Your task to perform on an android device: toggle priority inbox in the gmail app Image 0: 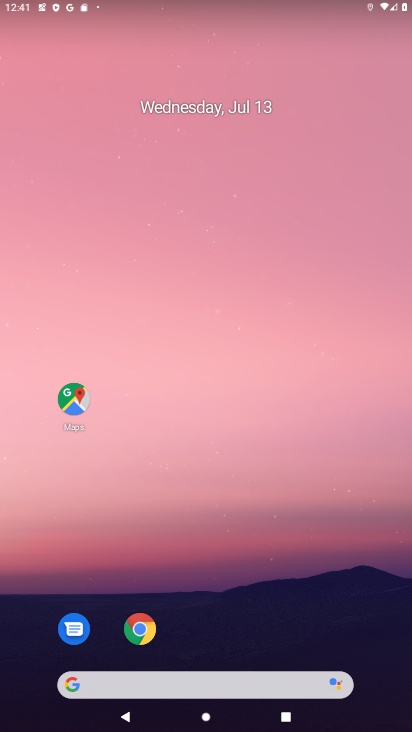
Step 0: drag from (233, 643) to (233, 337)
Your task to perform on an android device: toggle priority inbox in the gmail app Image 1: 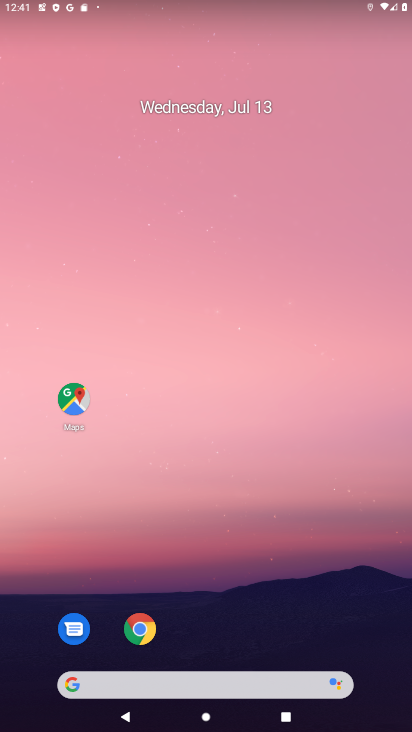
Step 1: drag from (211, 649) to (206, 236)
Your task to perform on an android device: toggle priority inbox in the gmail app Image 2: 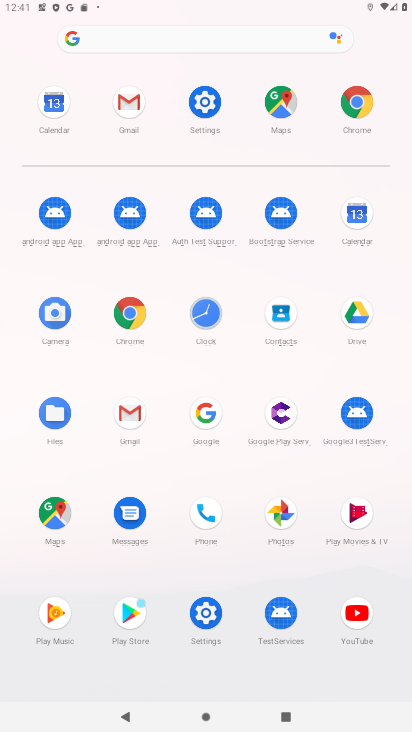
Step 2: click (129, 107)
Your task to perform on an android device: toggle priority inbox in the gmail app Image 3: 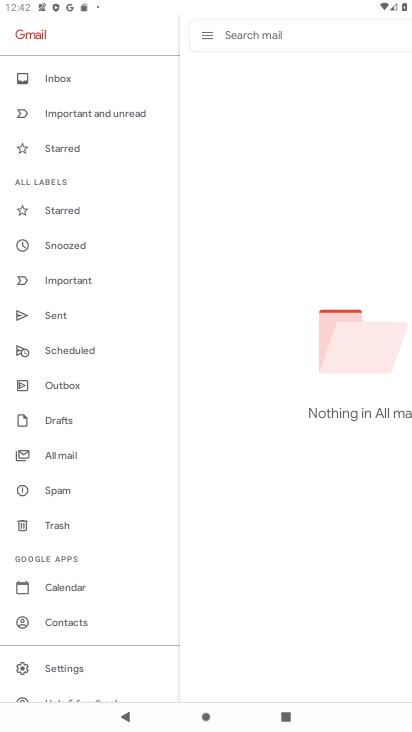
Step 3: click (58, 679)
Your task to perform on an android device: toggle priority inbox in the gmail app Image 4: 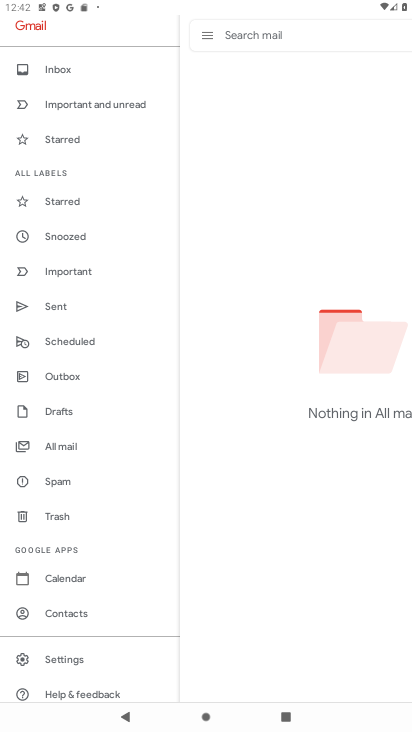
Step 4: click (64, 661)
Your task to perform on an android device: toggle priority inbox in the gmail app Image 5: 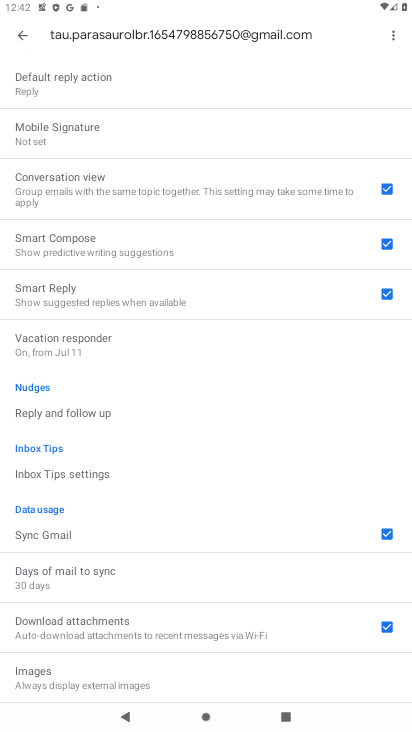
Step 5: drag from (46, 110) to (50, 544)
Your task to perform on an android device: toggle priority inbox in the gmail app Image 6: 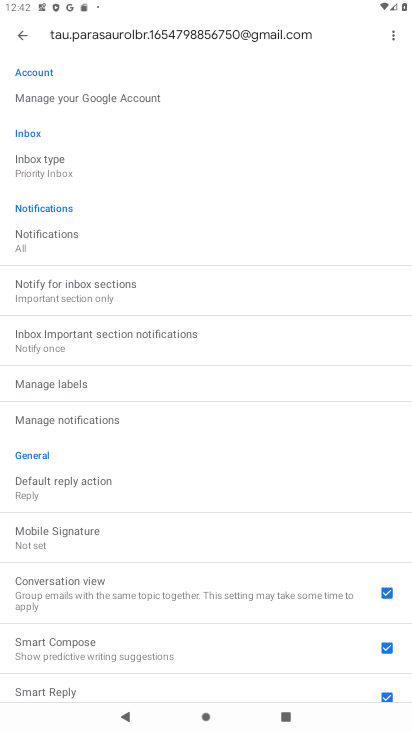
Step 6: click (58, 175)
Your task to perform on an android device: toggle priority inbox in the gmail app Image 7: 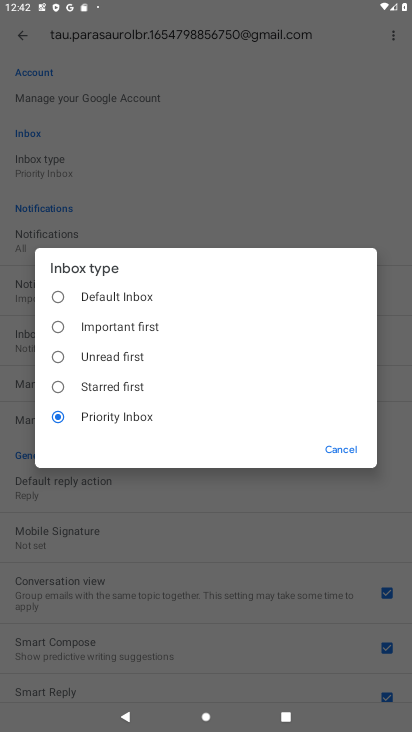
Step 7: click (108, 296)
Your task to perform on an android device: toggle priority inbox in the gmail app Image 8: 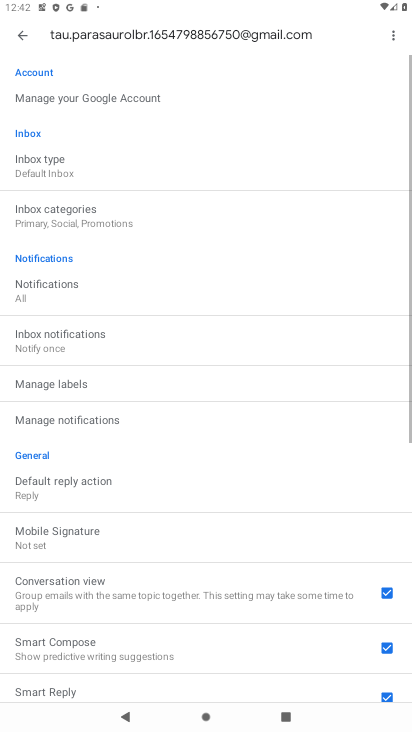
Step 8: task complete